Your task to perform on an android device: add a contact Image 0: 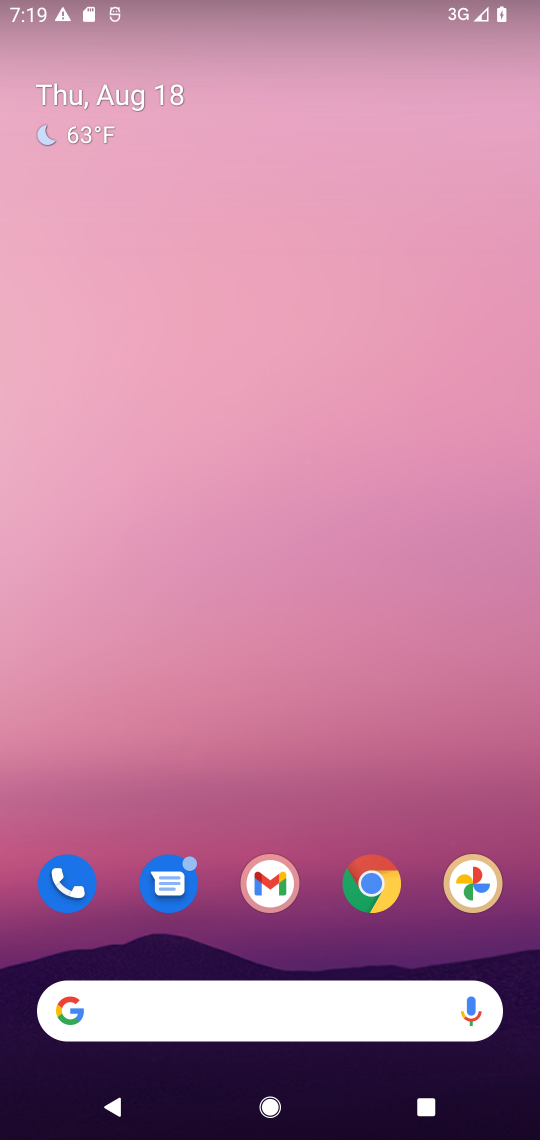
Step 0: drag from (19, 1056) to (187, 192)
Your task to perform on an android device: add a contact Image 1: 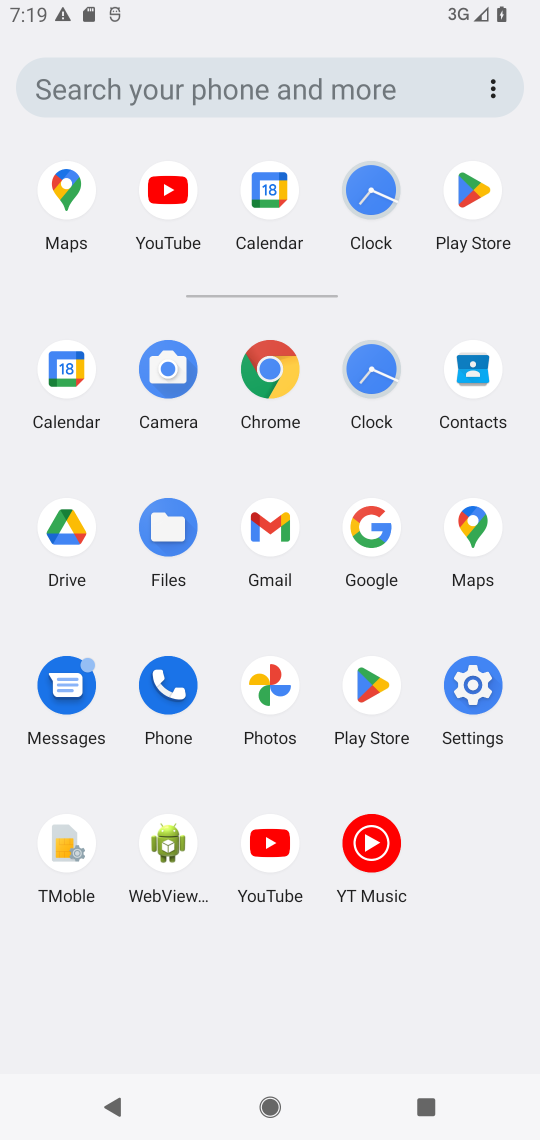
Step 1: click (181, 690)
Your task to perform on an android device: add a contact Image 2: 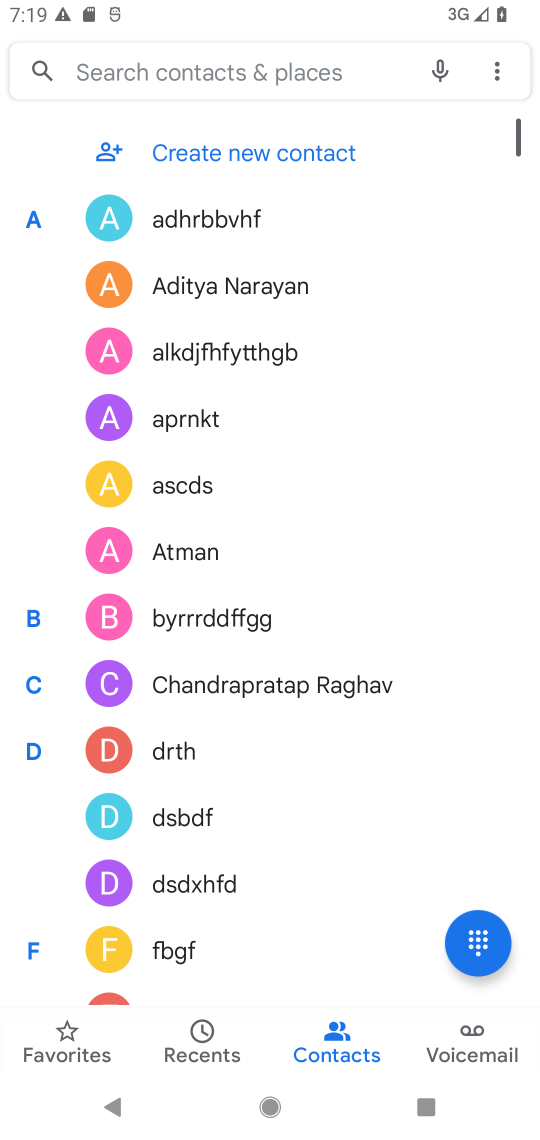
Step 2: click (240, 150)
Your task to perform on an android device: add a contact Image 3: 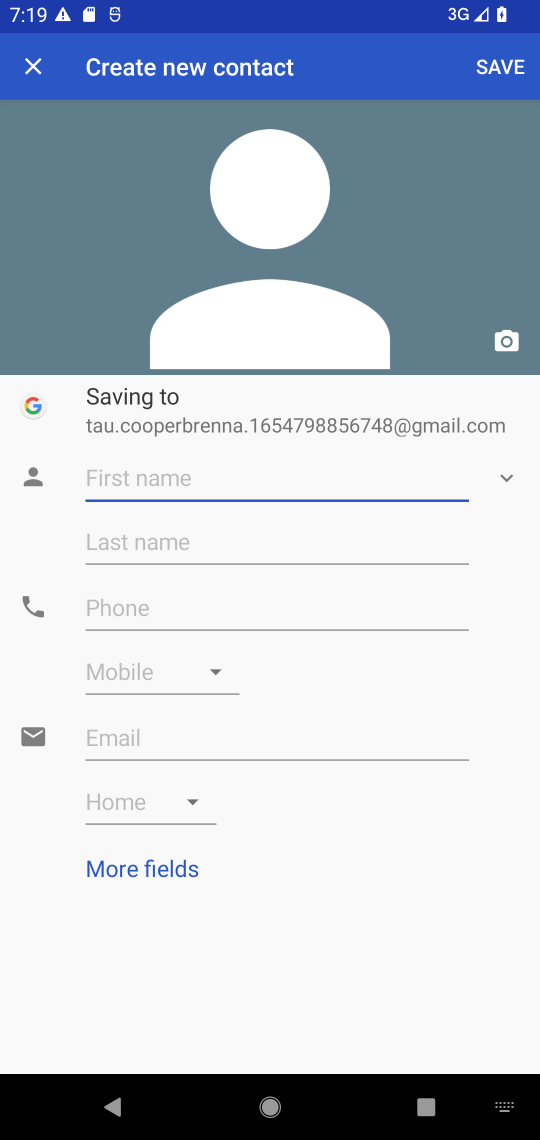
Step 3: type "dfnggf"
Your task to perform on an android device: add a contact Image 4: 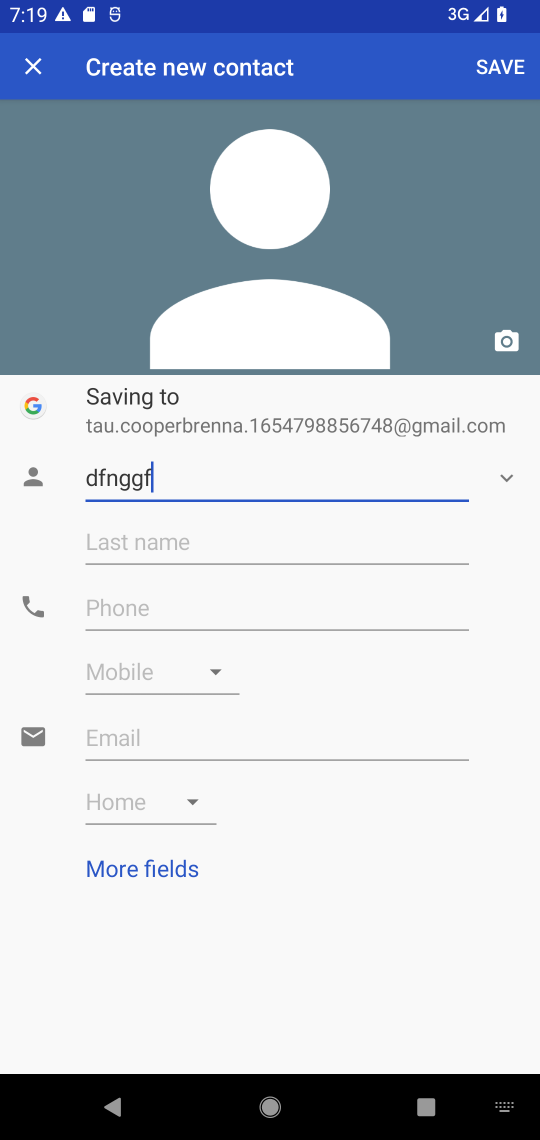
Step 4: click (484, 62)
Your task to perform on an android device: add a contact Image 5: 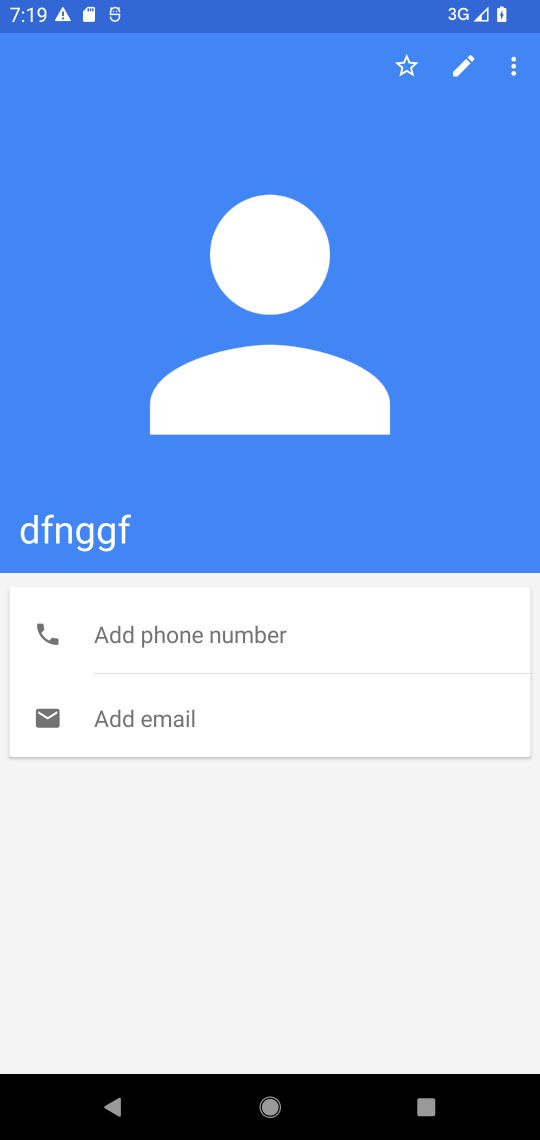
Step 5: task complete